Your task to perform on an android device: visit the assistant section in the google photos Image 0: 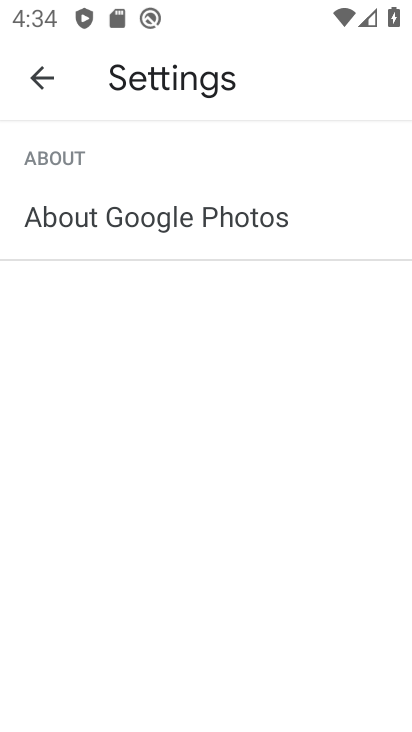
Step 0: click (42, 81)
Your task to perform on an android device: visit the assistant section in the google photos Image 1: 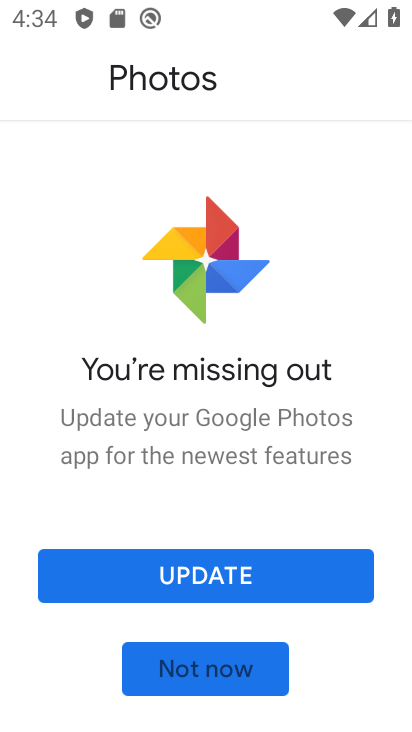
Step 1: click (229, 651)
Your task to perform on an android device: visit the assistant section in the google photos Image 2: 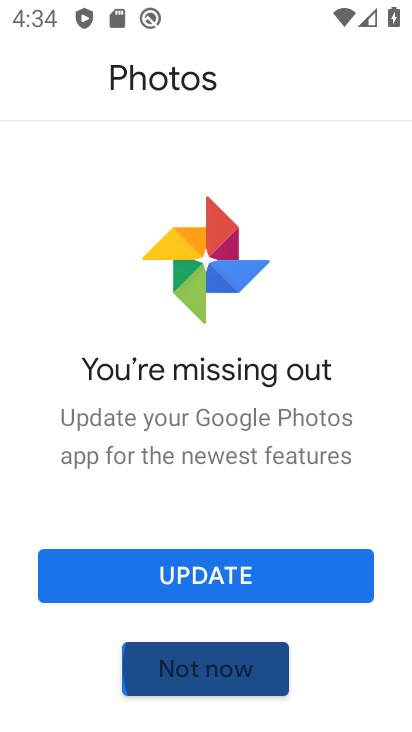
Step 2: click (229, 651)
Your task to perform on an android device: visit the assistant section in the google photos Image 3: 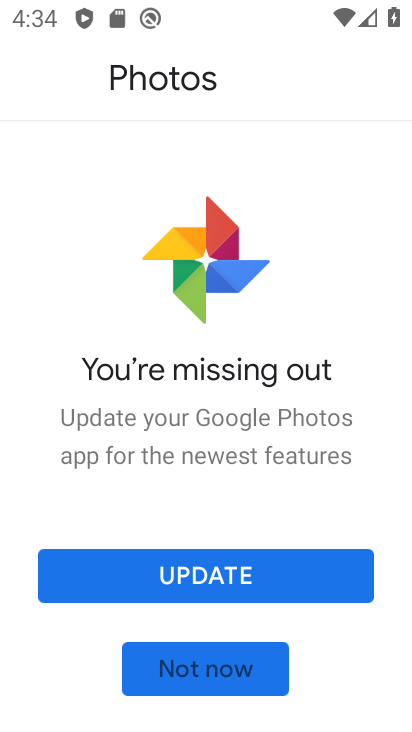
Step 3: click (229, 651)
Your task to perform on an android device: visit the assistant section in the google photos Image 4: 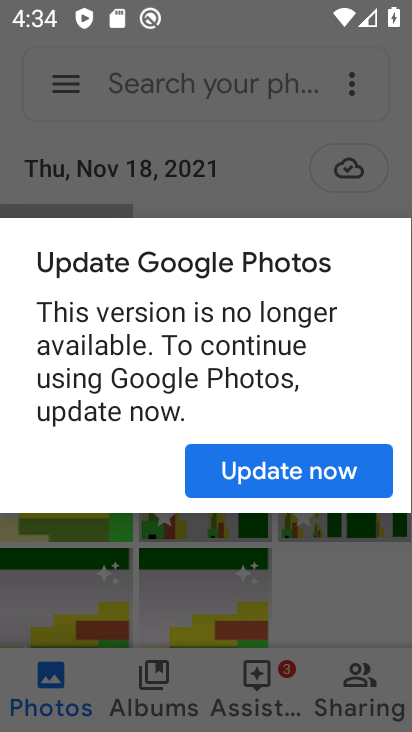
Step 4: click (228, 658)
Your task to perform on an android device: visit the assistant section in the google photos Image 5: 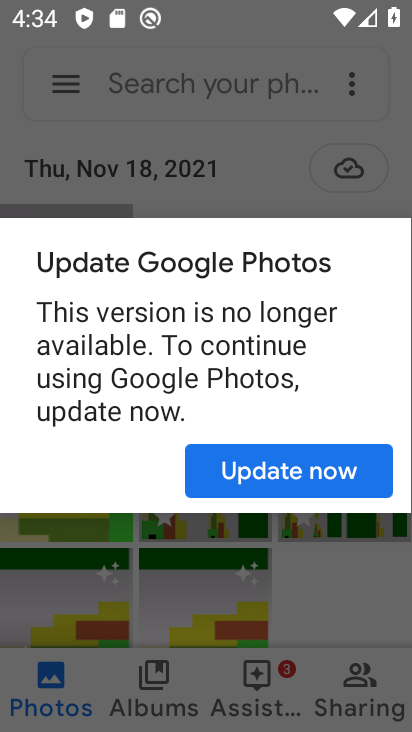
Step 5: click (226, 660)
Your task to perform on an android device: visit the assistant section in the google photos Image 6: 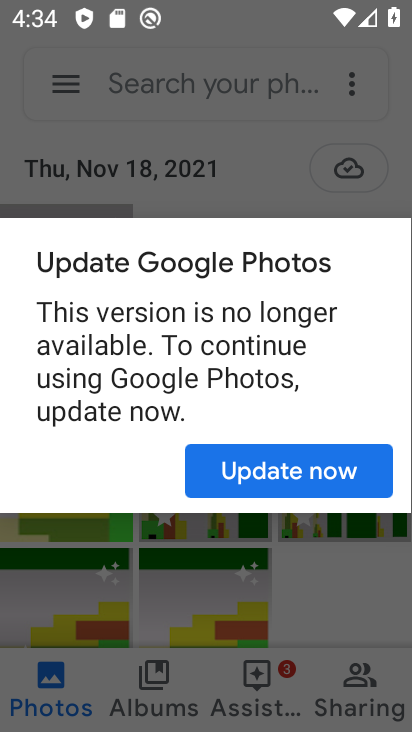
Step 6: click (336, 622)
Your task to perform on an android device: visit the assistant section in the google photos Image 7: 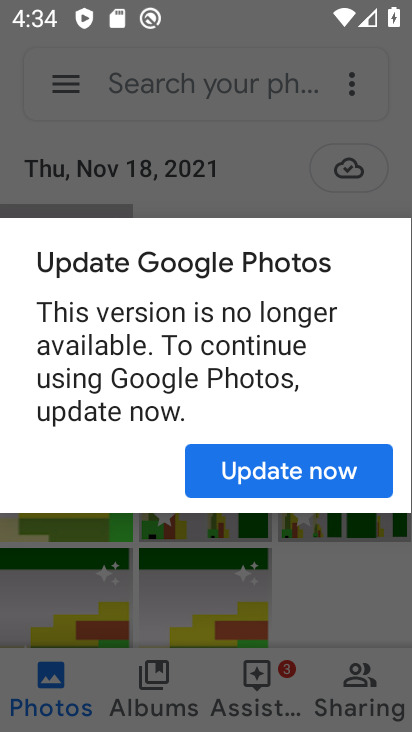
Step 7: click (369, 545)
Your task to perform on an android device: visit the assistant section in the google photos Image 8: 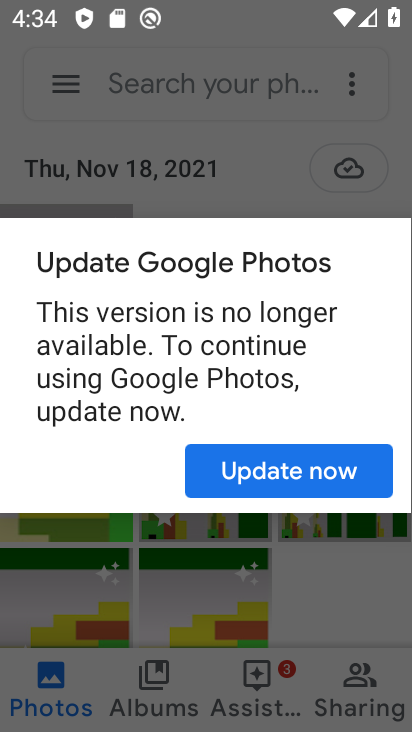
Step 8: click (319, 550)
Your task to perform on an android device: visit the assistant section in the google photos Image 9: 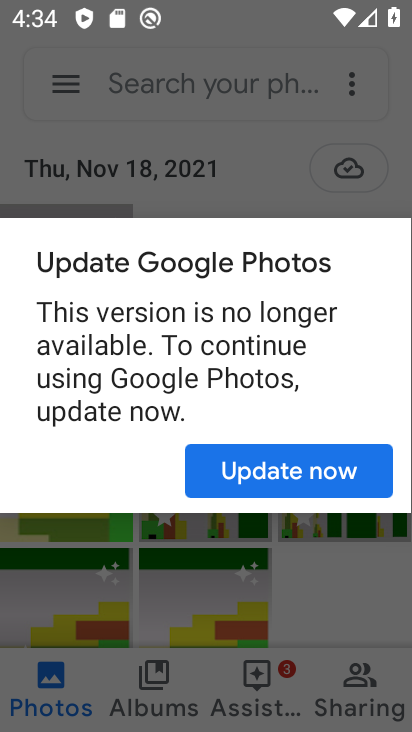
Step 9: click (320, 548)
Your task to perform on an android device: visit the assistant section in the google photos Image 10: 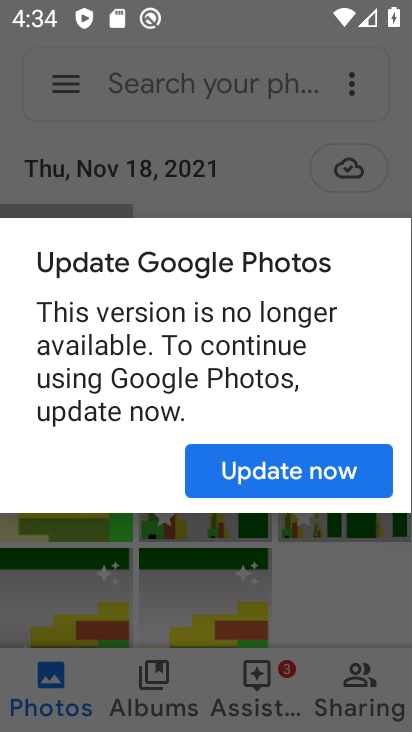
Step 10: click (320, 546)
Your task to perform on an android device: visit the assistant section in the google photos Image 11: 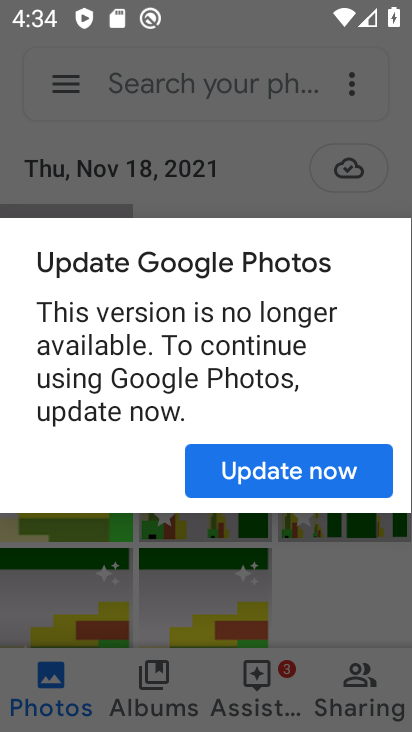
Step 11: click (320, 545)
Your task to perform on an android device: visit the assistant section in the google photos Image 12: 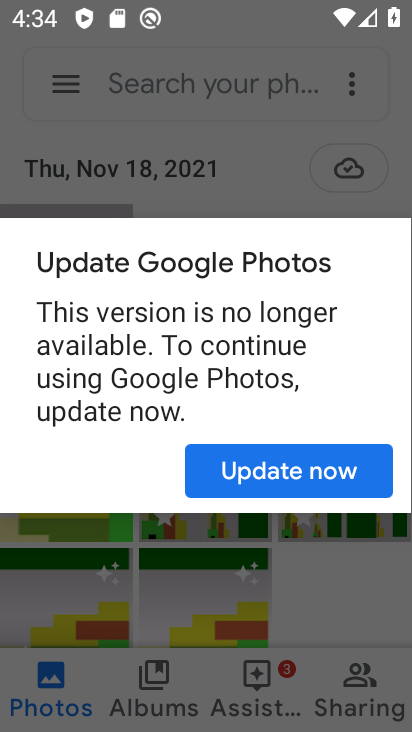
Step 12: click (295, 463)
Your task to perform on an android device: visit the assistant section in the google photos Image 13: 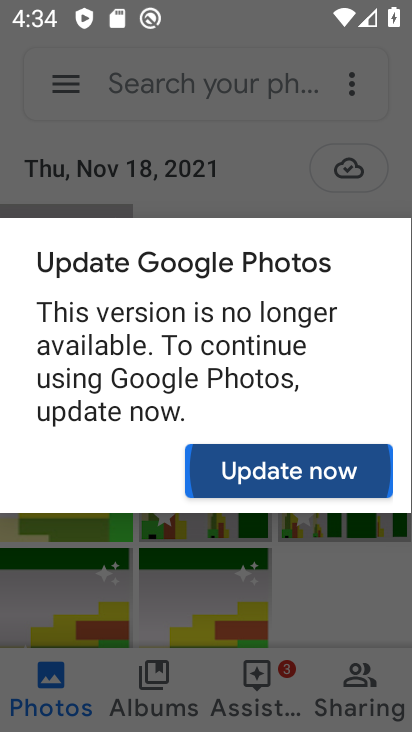
Step 13: click (294, 462)
Your task to perform on an android device: visit the assistant section in the google photos Image 14: 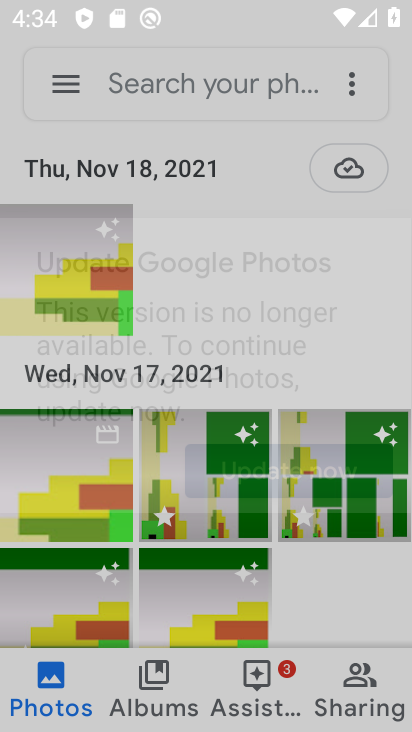
Step 14: click (293, 461)
Your task to perform on an android device: visit the assistant section in the google photos Image 15: 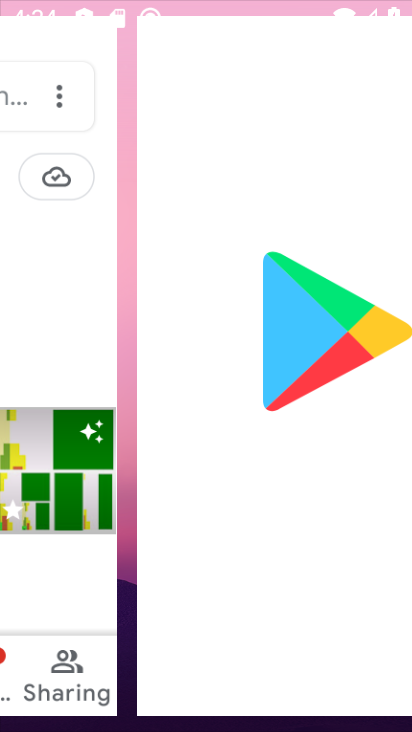
Step 15: click (293, 461)
Your task to perform on an android device: visit the assistant section in the google photos Image 16: 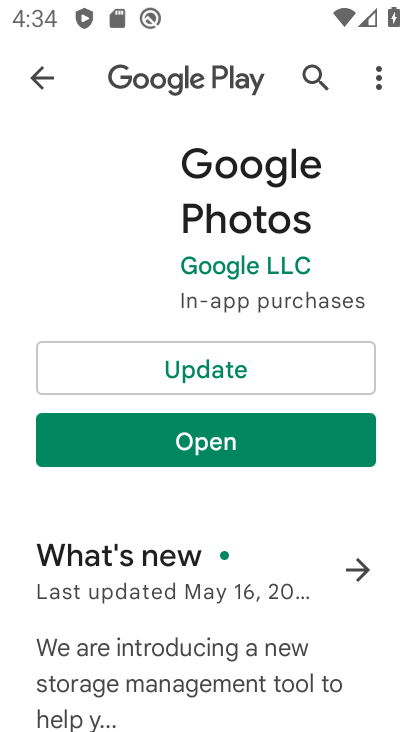
Step 16: click (297, 470)
Your task to perform on an android device: visit the assistant section in the google photos Image 17: 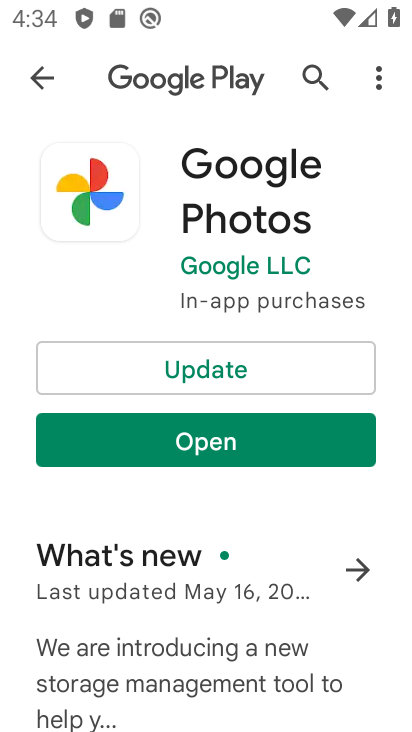
Step 17: click (297, 470)
Your task to perform on an android device: visit the assistant section in the google photos Image 18: 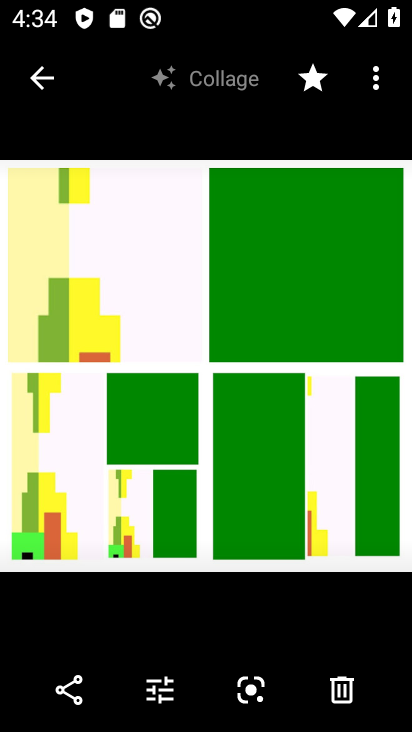
Step 18: click (46, 79)
Your task to perform on an android device: visit the assistant section in the google photos Image 19: 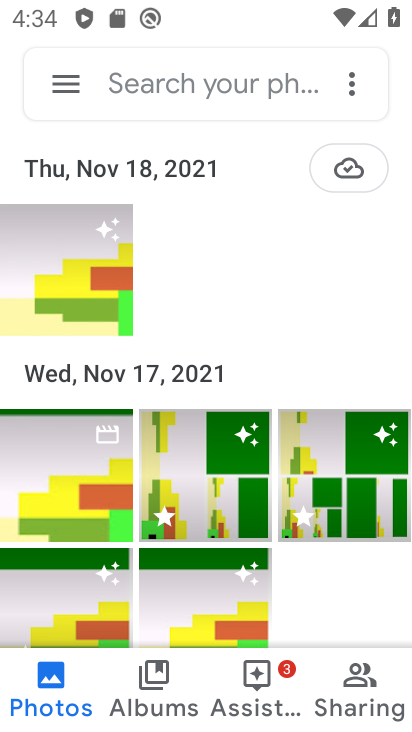
Step 19: click (247, 678)
Your task to perform on an android device: visit the assistant section in the google photos Image 20: 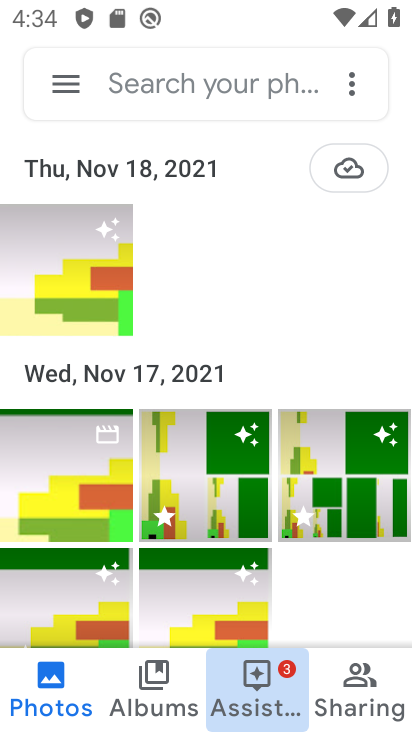
Step 20: click (247, 677)
Your task to perform on an android device: visit the assistant section in the google photos Image 21: 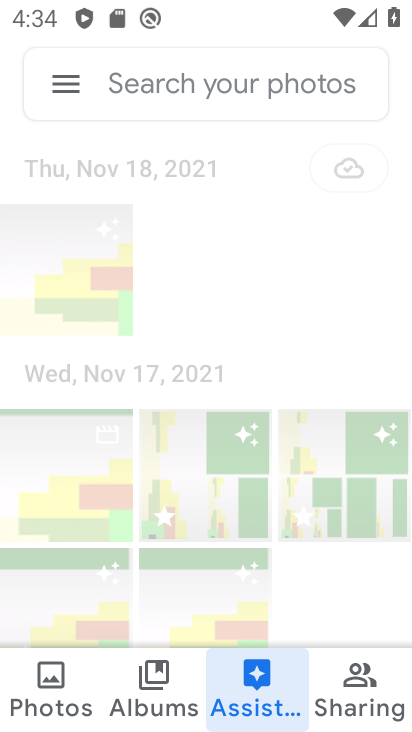
Step 21: click (247, 677)
Your task to perform on an android device: visit the assistant section in the google photos Image 22: 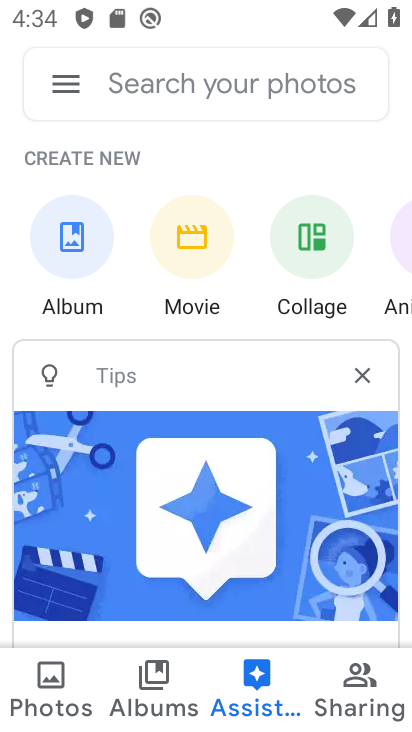
Step 22: task complete